Your task to perform on an android device: find photos in the google photos app Image 0: 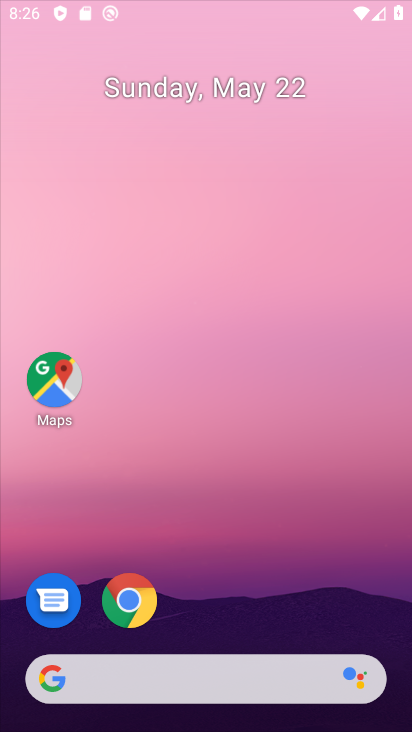
Step 0: drag from (161, 354) to (128, 226)
Your task to perform on an android device: find photos in the google photos app Image 1: 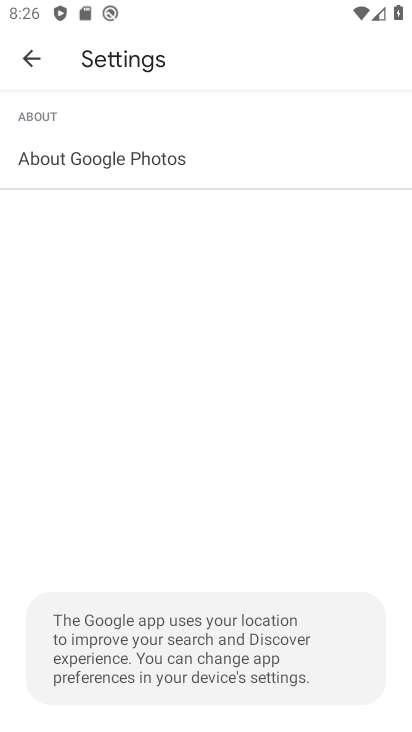
Step 1: press home button
Your task to perform on an android device: find photos in the google photos app Image 2: 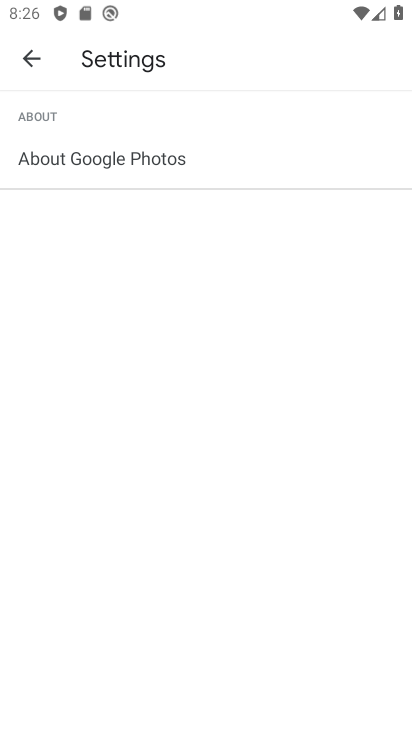
Step 2: press home button
Your task to perform on an android device: find photos in the google photos app Image 3: 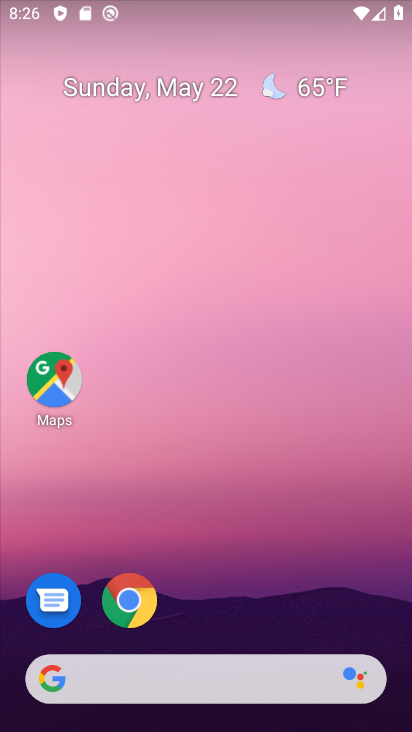
Step 3: drag from (190, 636) to (147, 149)
Your task to perform on an android device: find photos in the google photos app Image 4: 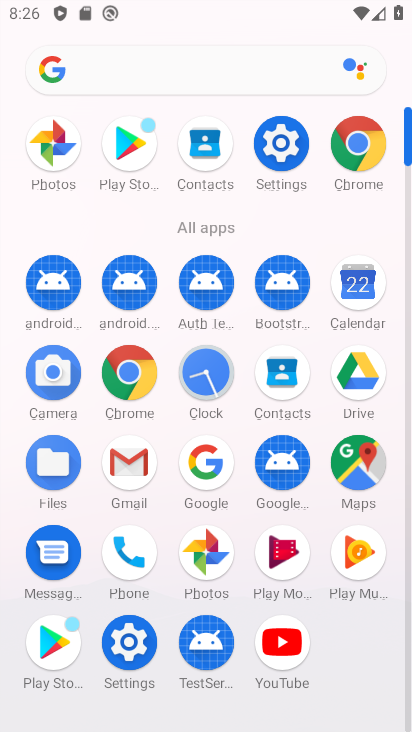
Step 4: click (41, 156)
Your task to perform on an android device: find photos in the google photos app Image 5: 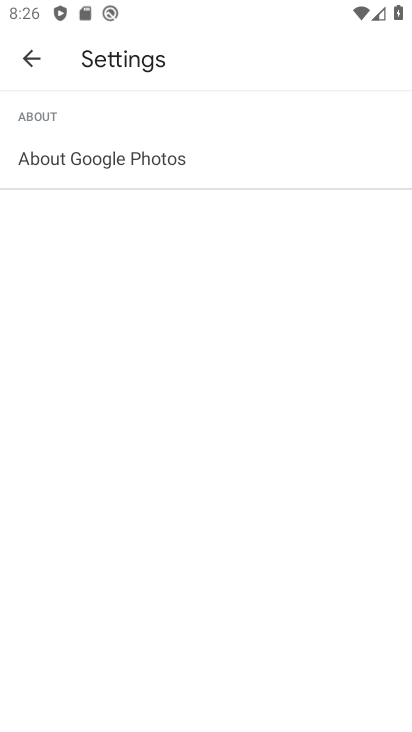
Step 5: click (31, 50)
Your task to perform on an android device: find photos in the google photos app Image 6: 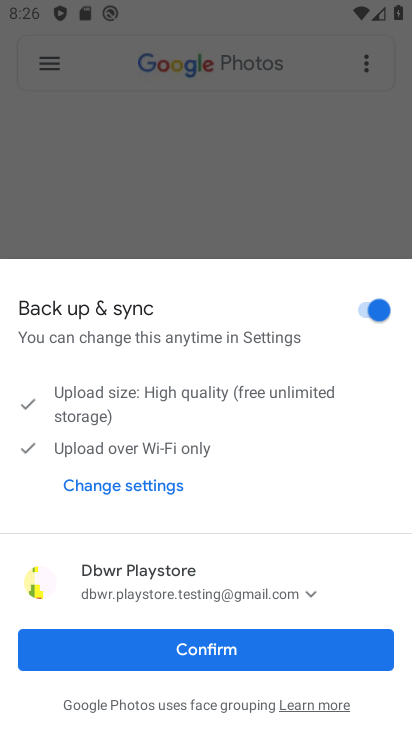
Step 6: click (210, 648)
Your task to perform on an android device: find photos in the google photos app Image 7: 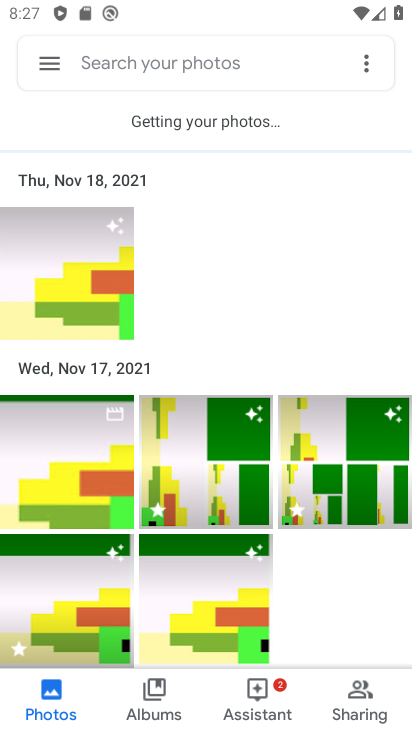
Step 7: task complete